Your task to perform on an android device: turn off sleep mode Image 0: 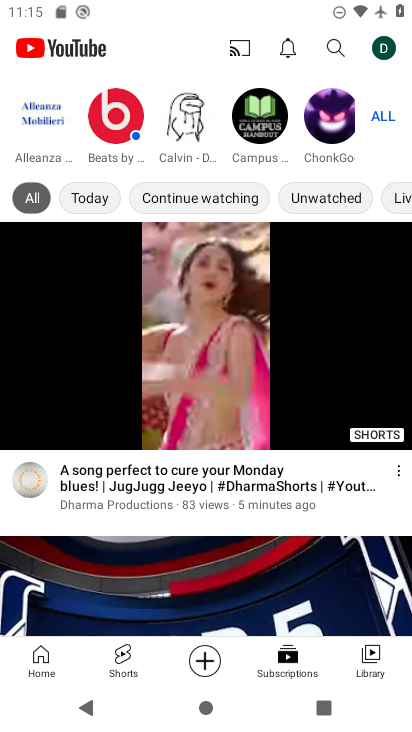
Step 0: press home button
Your task to perform on an android device: turn off sleep mode Image 1: 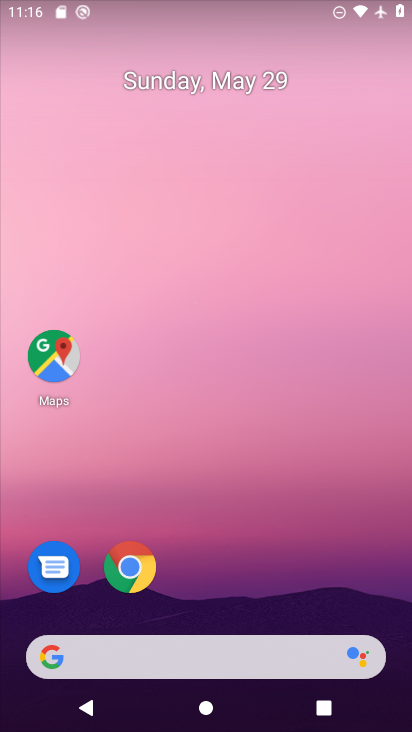
Step 1: drag from (359, 611) to (293, 31)
Your task to perform on an android device: turn off sleep mode Image 2: 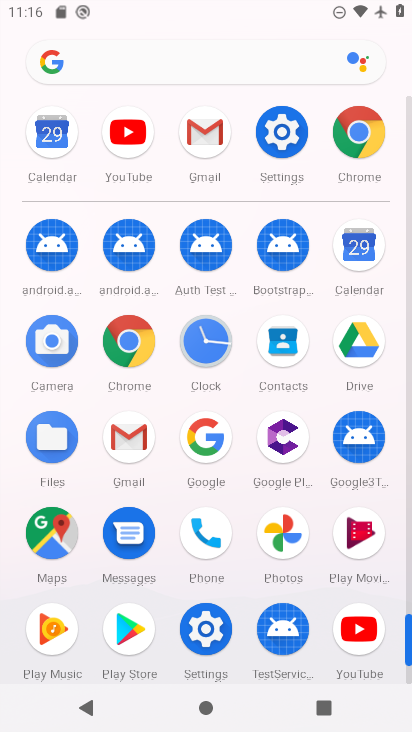
Step 2: click (209, 623)
Your task to perform on an android device: turn off sleep mode Image 3: 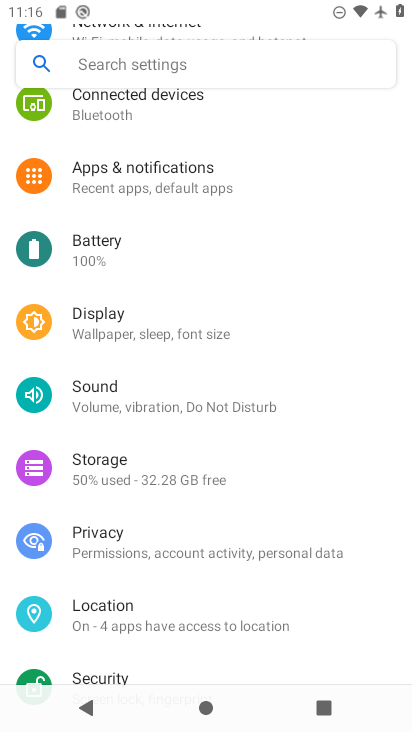
Step 3: click (143, 326)
Your task to perform on an android device: turn off sleep mode Image 4: 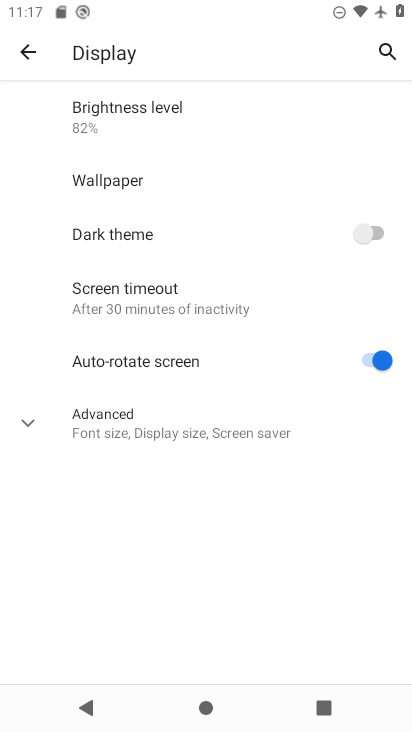
Step 4: click (23, 424)
Your task to perform on an android device: turn off sleep mode Image 5: 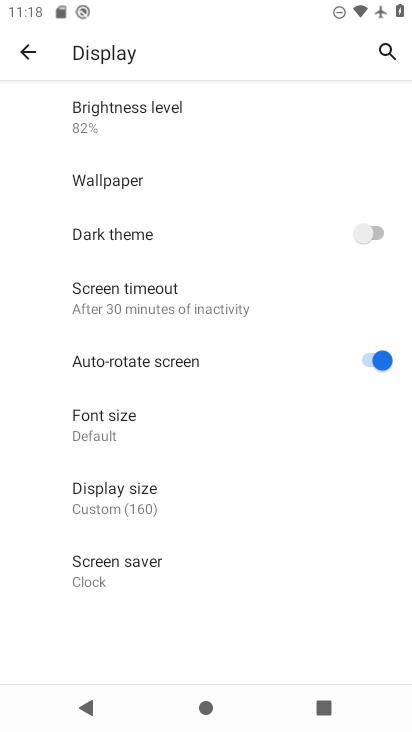
Step 5: task complete